Your task to perform on an android device: delete browsing data in the chrome app Image 0: 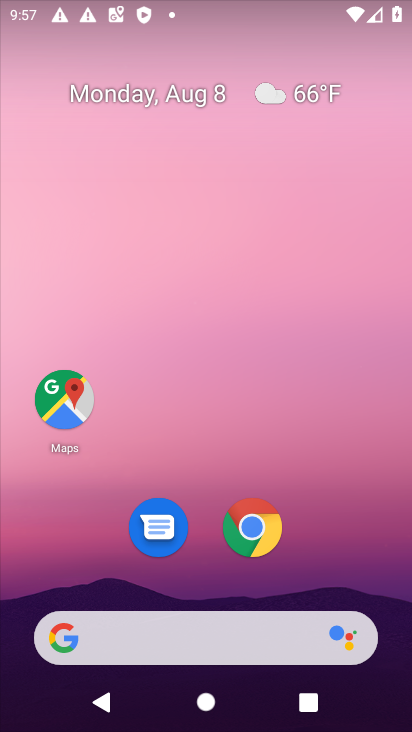
Step 0: click (262, 522)
Your task to perform on an android device: delete browsing data in the chrome app Image 1: 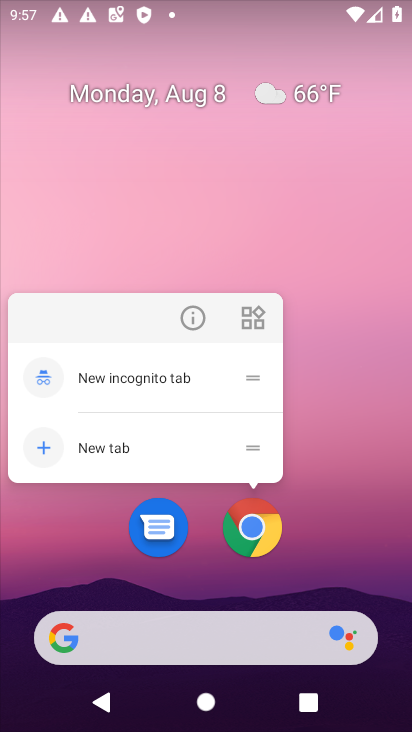
Step 1: click (250, 525)
Your task to perform on an android device: delete browsing data in the chrome app Image 2: 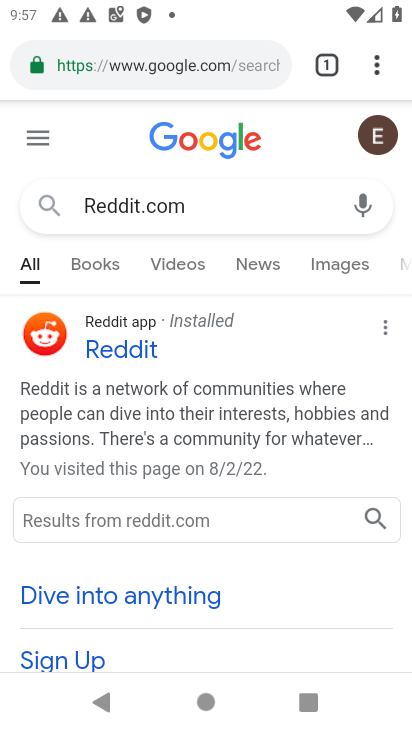
Step 2: click (376, 63)
Your task to perform on an android device: delete browsing data in the chrome app Image 3: 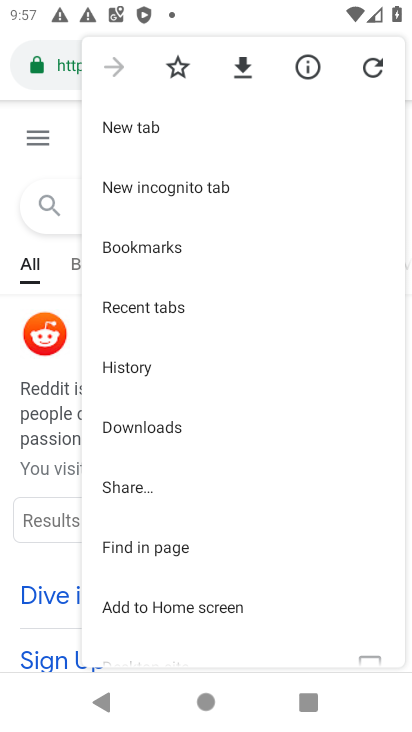
Step 3: drag from (271, 617) to (258, 321)
Your task to perform on an android device: delete browsing data in the chrome app Image 4: 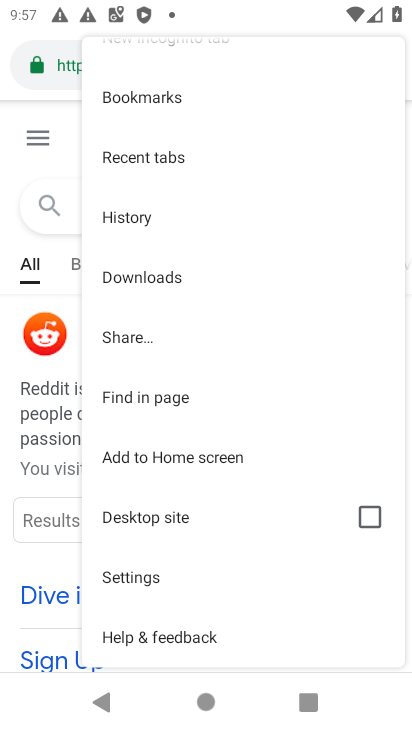
Step 4: click (115, 211)
Your task to perform on an android device: delete browsing data in the chrome app Image 5: 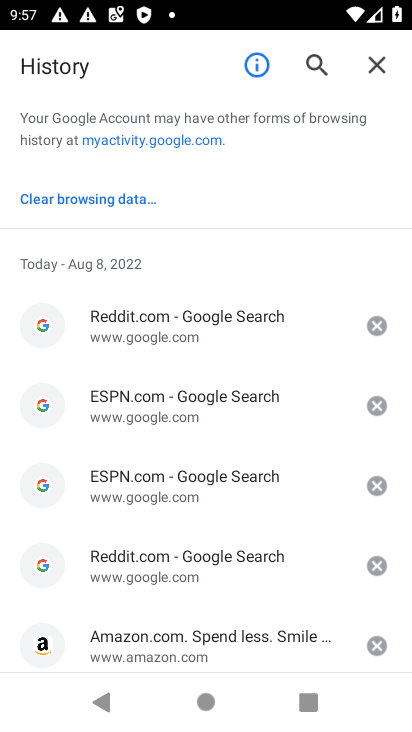
Step 5: click (92, 195)
Your task to perform on an android device: delete browsing data in the chrome app Image 6: 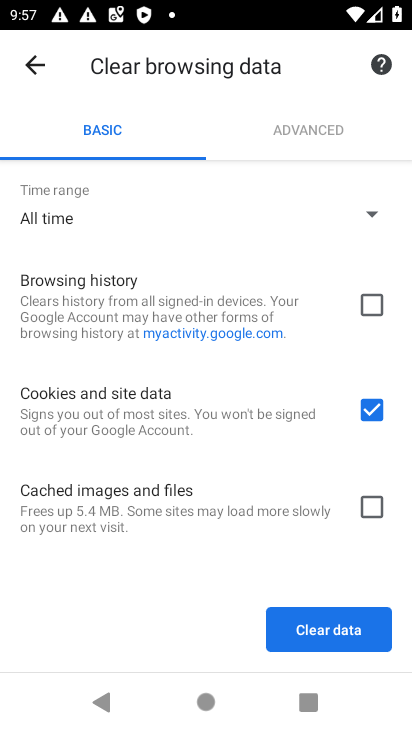
Step 6: click (336, 625)
Your task to perform on an android device: delete browsing data in the chrome app Image 7: 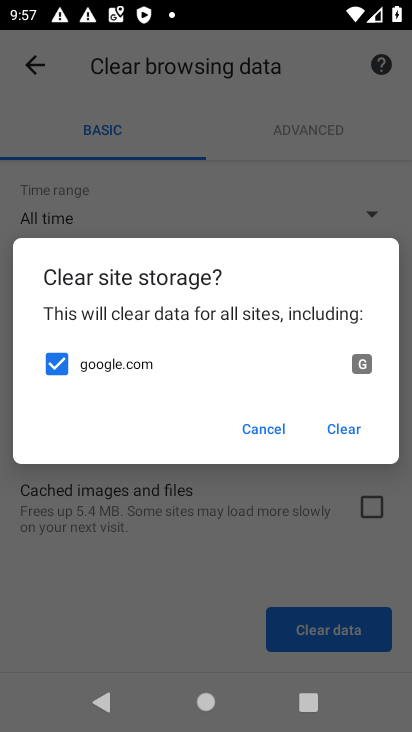
Step 7: click (329, 421)
Your task to perform on an android device: delete browsing data in the chrome app Image 8: 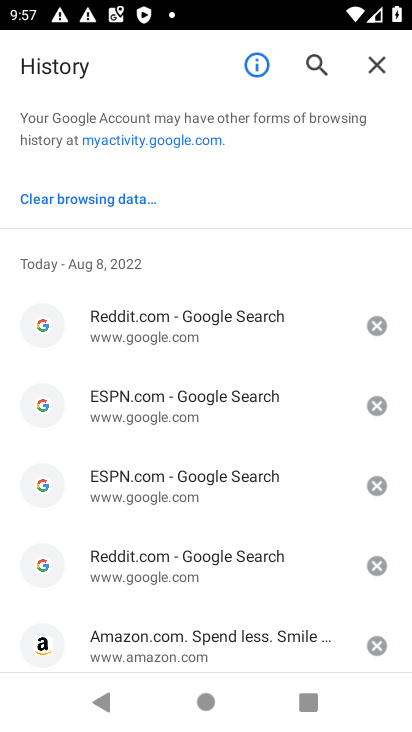
Step 8: click (108, 198)
Your task to perform on an android device: delete browsing data in the chrome app Image 9: 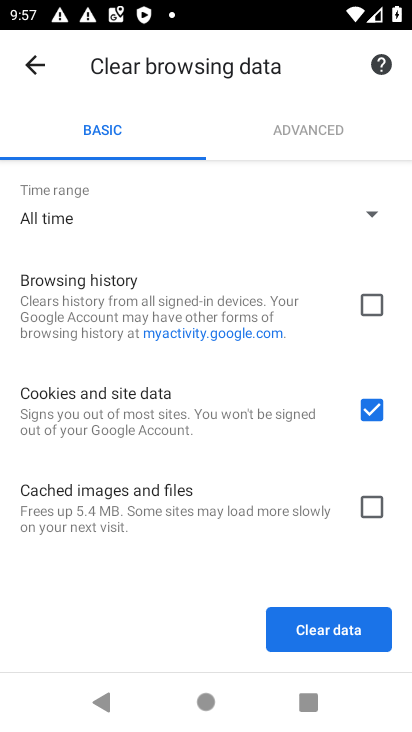
Step 9: click (380, 303)
Your task to perform on an android device: delete browsing data in the chrome app Image 10: 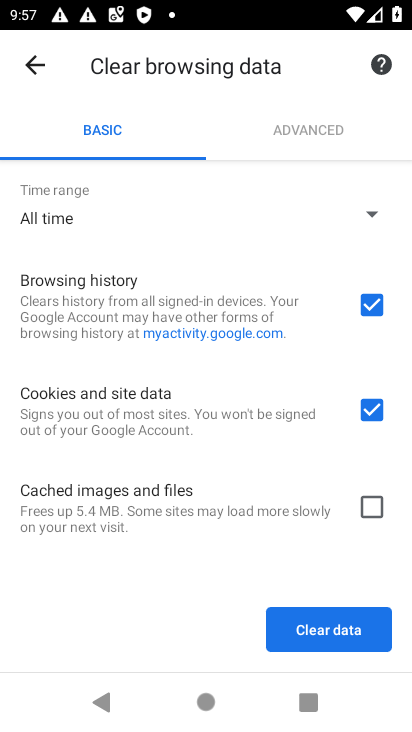
Step 10: click (374, 504)
Your task to perform on an android device: delete browsing data in the chrome app Image 11: 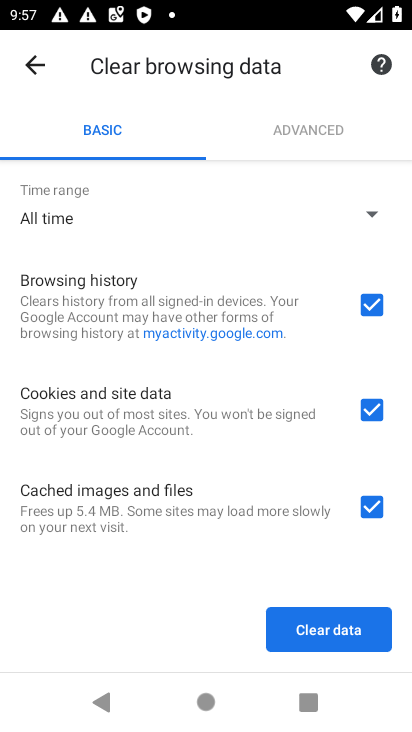
Step 11: click (328, 632)
Your task to perform on an android device: delete browsing data in the chrome app Image 12: 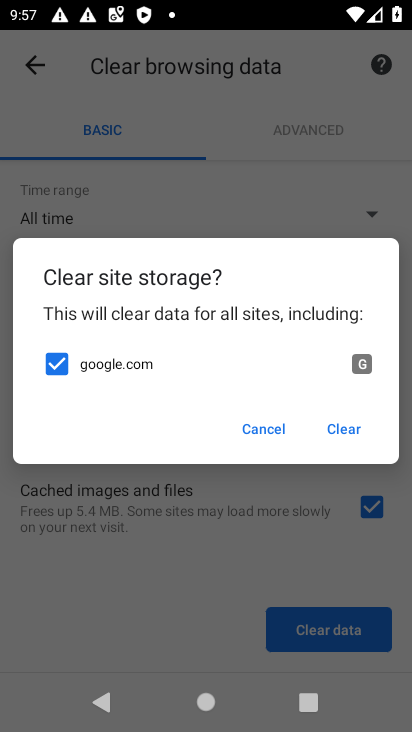
Step 12: click (345, 425)
Your task to perform on an android device: delete browsing data in the chrome app Image 13: 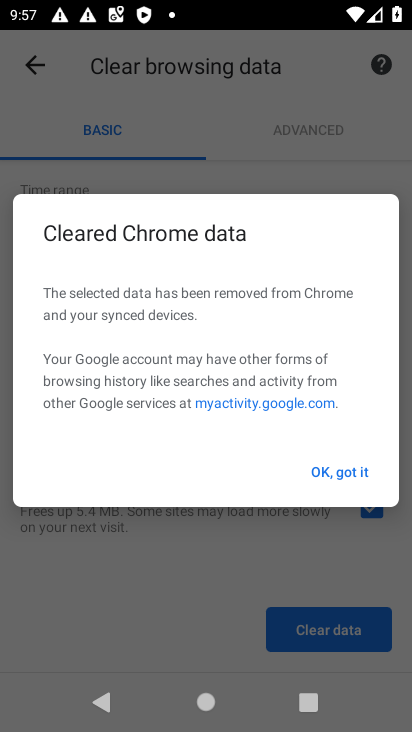
Step 13: click (351, 472)
Your task to perform on an android device: delete browsing data in the chrome app Image 14: 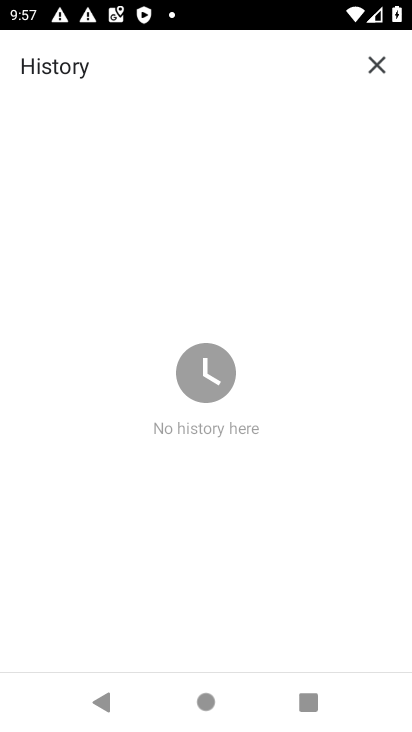
Step 14: task complete